Your task to perform on an android device: Search for vegetarian restaurants on Maps Image 0: 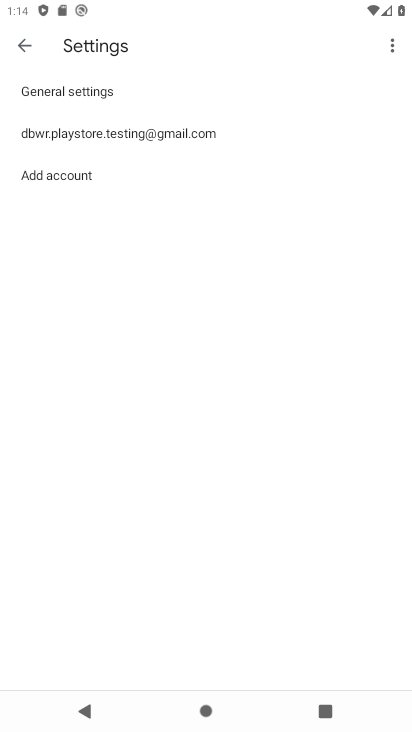
Step 0: press home button
Your task to perform on an android device: Search for vegetarian restaurants on Maps Image 1: 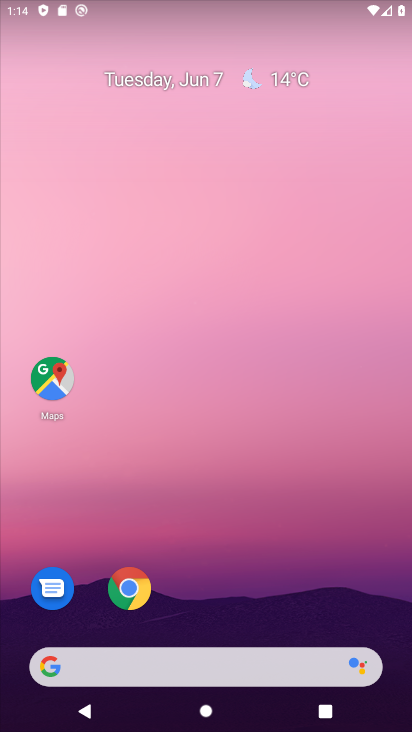
Step 1: click (55, 373)
Your task to perform on an android device: Search for vegetarian restaurants on Maps Image 2: 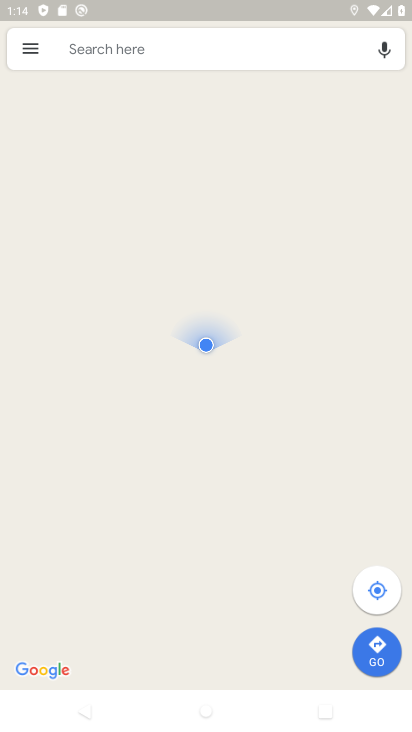
Step 2: click (142, 57)
Your task to perform on an android device: Search for vegetarian restaurants on Maps Image 3: 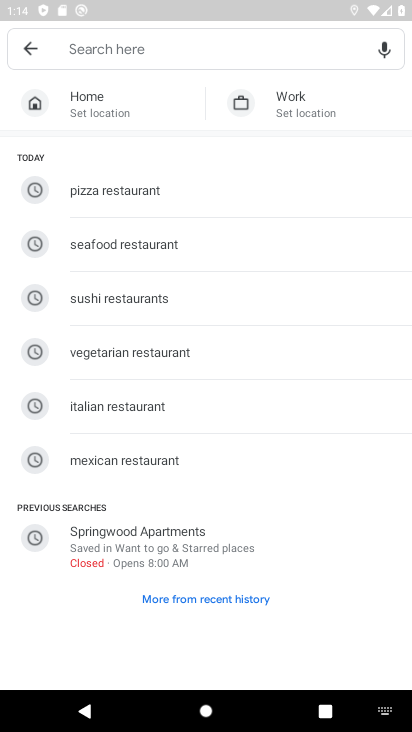
Step 3: type "v"
Your task to perform on an android device: Search for vegetarian restaurants on Maps Image 4: 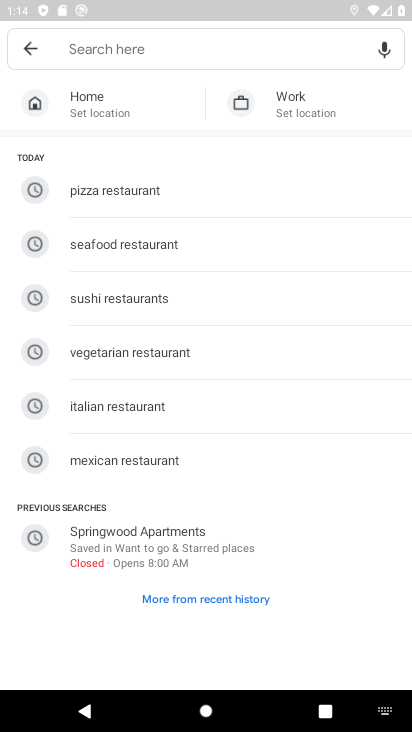
Step 4: click (203, 344)
Your task to perform on an android device: Search for vegetarian restaurants on Maps Image 5: 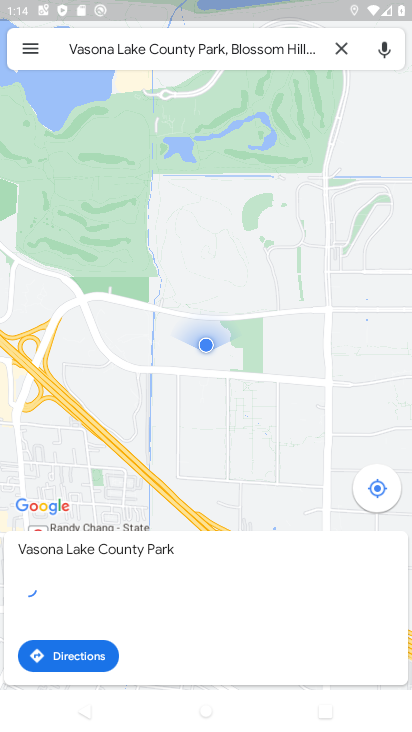
Step 5: click (189, 98)
Your task to perform on an android device: Search for vegetarian restaurants on Maps Image 6: 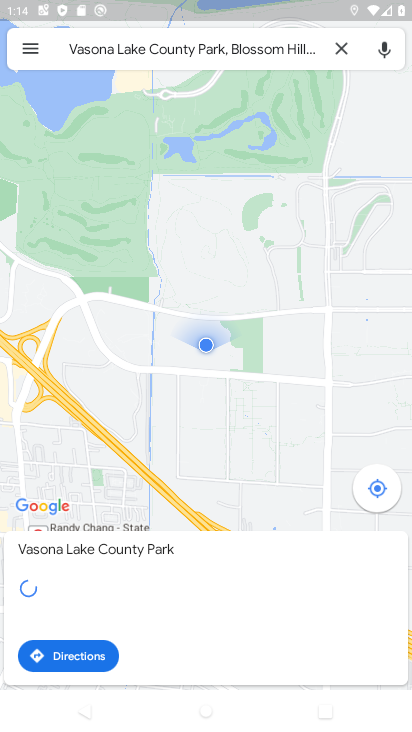
Step 6: task complete